Your task to perform on an android device: Go to network settings Image 0: 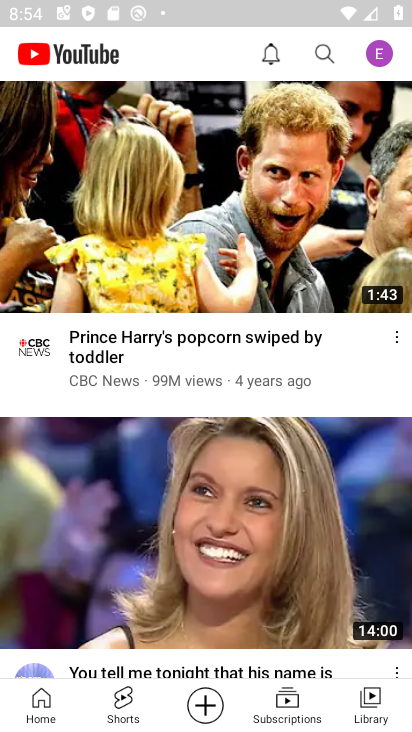
Step 0: press home button
Your task to perform on an android device: Go to network settings Image 1: 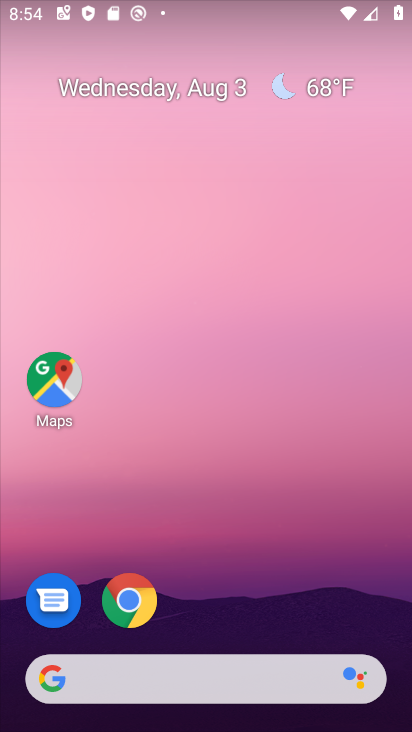
Step 1: drag from (200, 492) to (69, 19)
Your task to perform on an android device: Go to network settings Image 2: 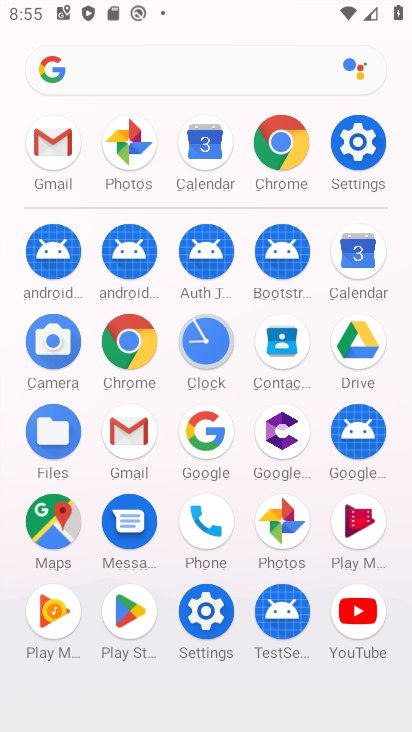
Step 2: click (363, 165)
Your task to perform on an android device: Go to network settings Image 3: 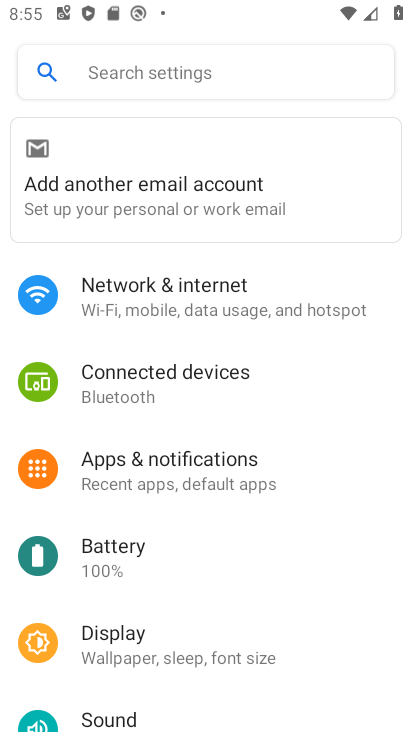
Step 3: click (166, 310)
Your task to perform on an android device: Go to network settings Image 4: 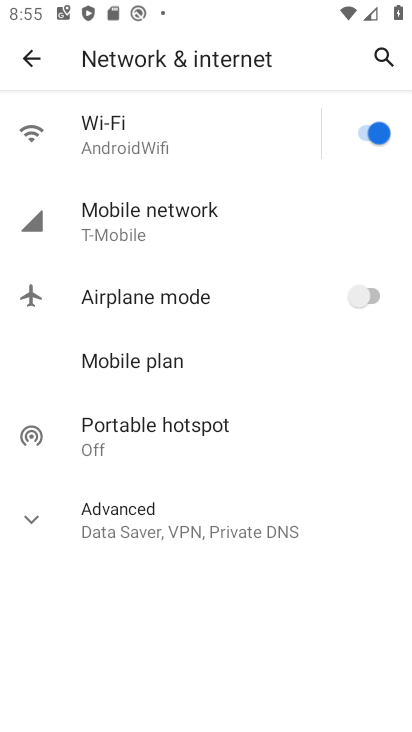
Step 4: task complete